Your task to perform on an android device: open the mobile data screen to see how much data has been used Image 0: 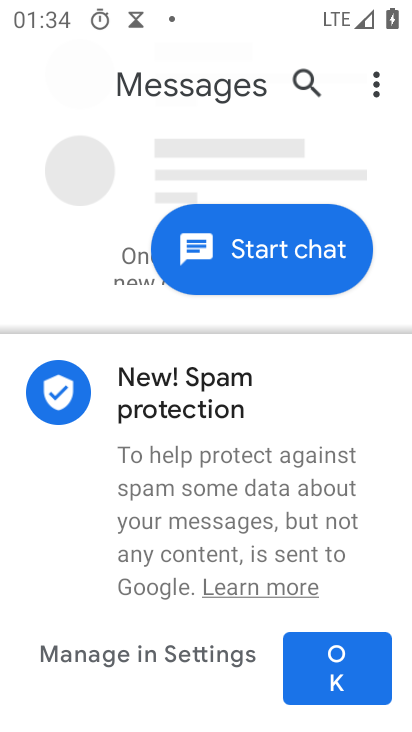
Step 0: press home button
Your task to perform on an android device: open the mobile data screen to see how much data has been used Image 1: 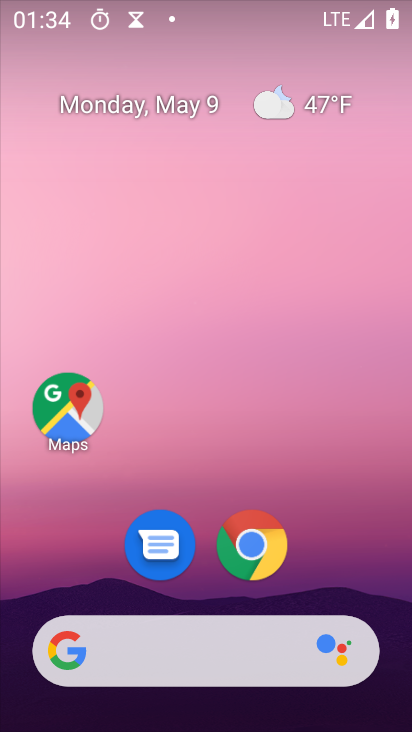
Step 1: drag from (326, 627) to (282, 128)
Your task to perform on an android device: open the mobile data screen to see how much data has been used Image 2: 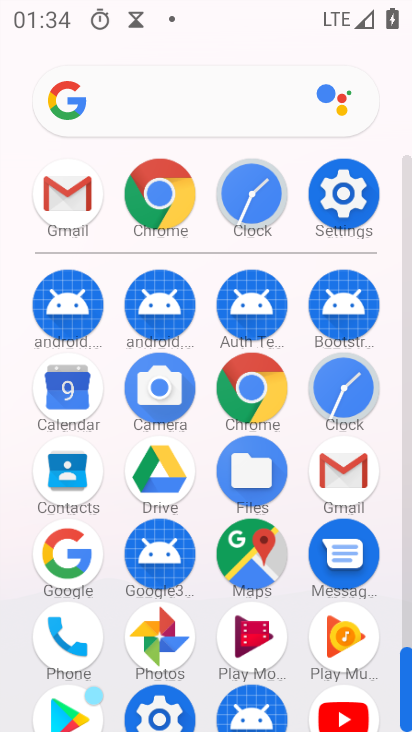
Step 2: click (340, 197)
Your task to perform on an android device: open the mobile data screen to see how much data has been used Image 3: 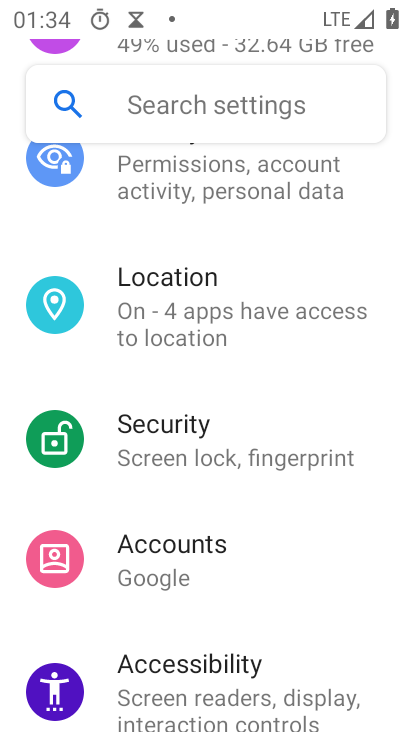
Step 3: drag from (206, 179) to (192, 715)
Your task to perform on an android device: open the mobile data screen to see how much data has been used Image 4: 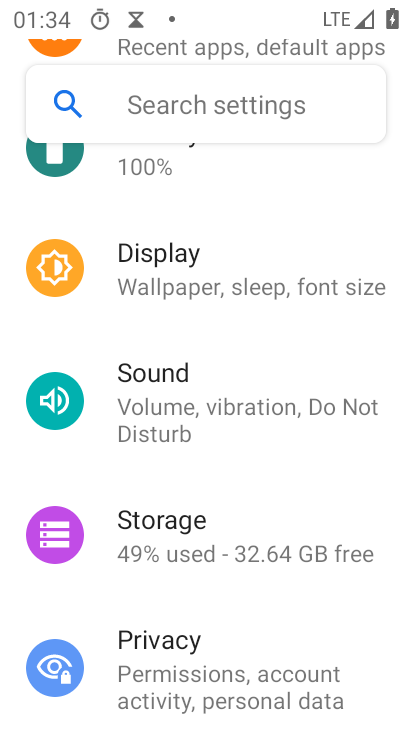
Step 4: drag from (234, 236) to (221, 678)
Your task to perform on an android device: open the mobile data screen to see how much data has been used Image 5: 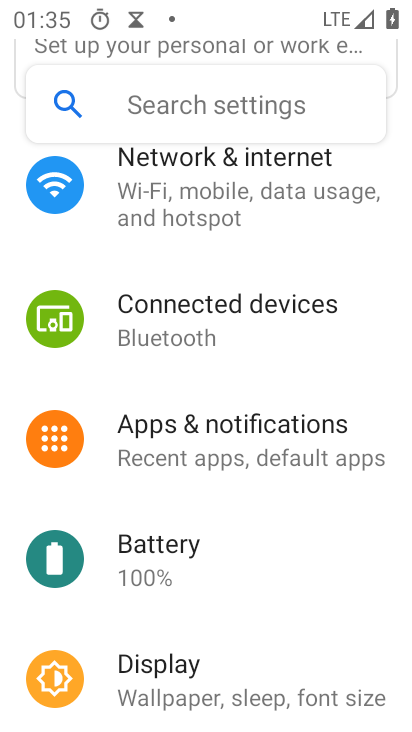
Step 5: drag from (283, 246) to (273, 494)
Your task to perform on an android device: open the mobile data screen to see how much data has been used Image 6: 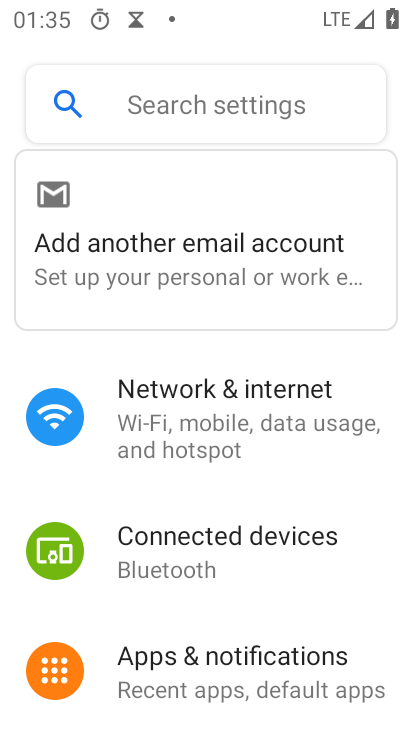
Step 6: click (289, 416)
Your task to perform on an android device: open the mobile data screen to see how much data has been used Image 7: 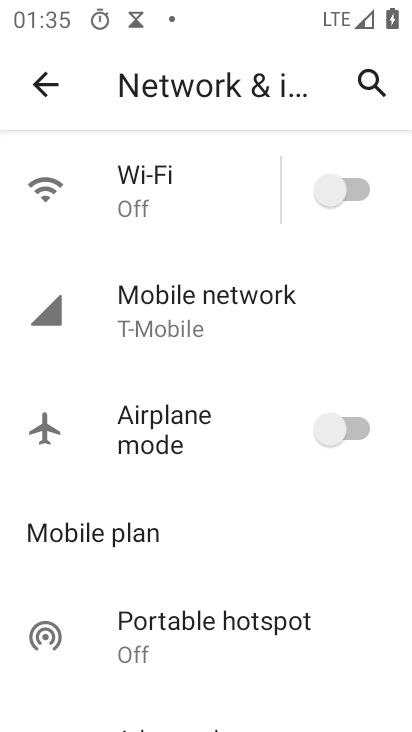
Step 7: click (212, 321)
Your task to perform on an android device: open the mobile data screen to see how much data has been used Image 8: 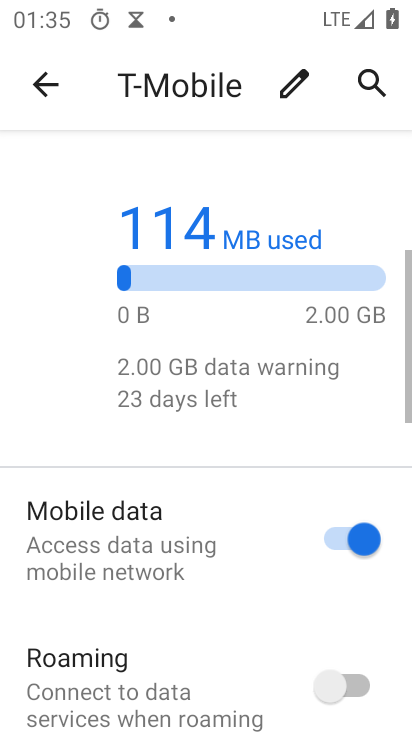
Step 8: task complete